Your task to perform on an android device: check storage Image 0: 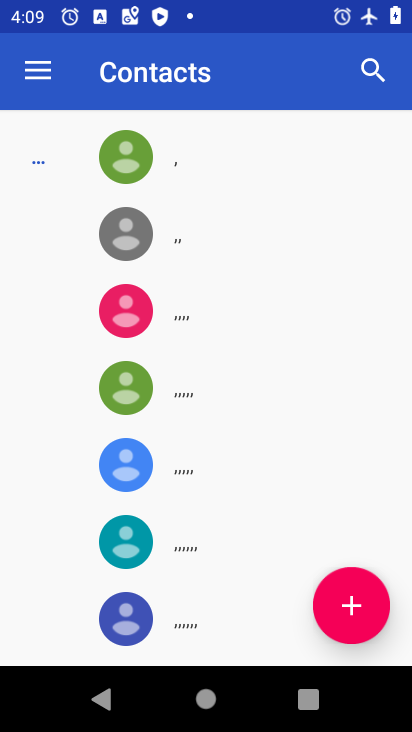
Step 0: press home button
Your task to perform on an android device: check storage Image 1: 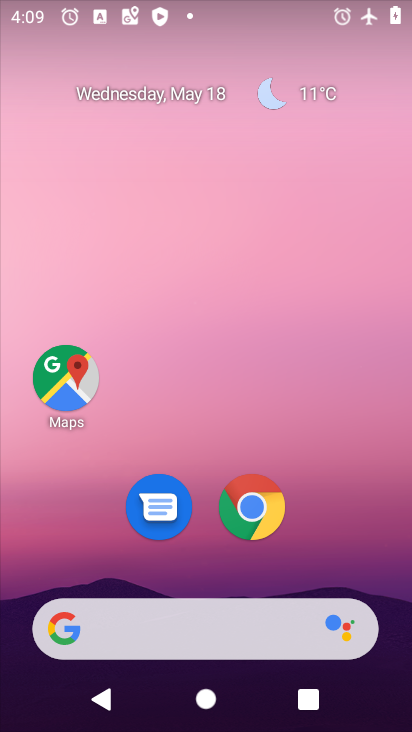
Step 1: drag from (402, 617) to (333, 120)
Your task to perform on an android device: check storage Image 2: 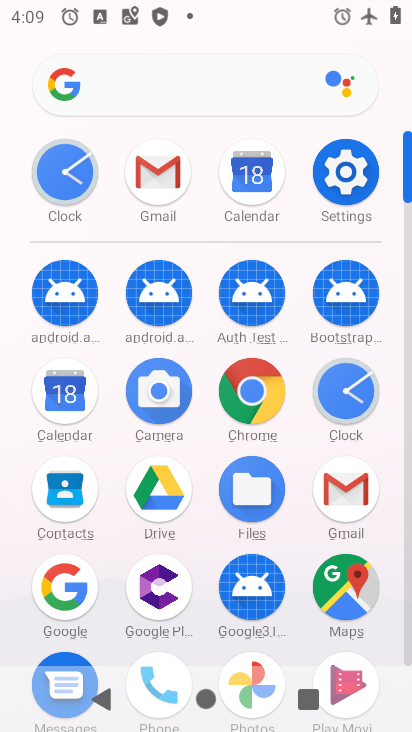
Step 2: click (407, 643)
Your task to perform on an android device: check storage Image 3: 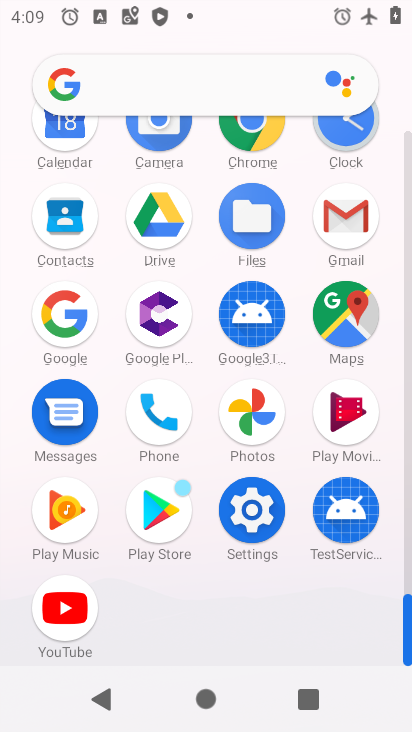
Step 3: click (252, 510)
Your task to perform on an android device: check storage Image 4: 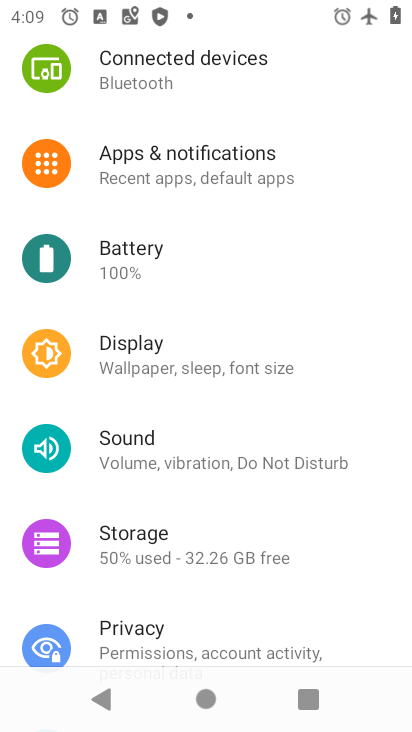
Step 4: click (132, 540)
Your task to perform on an android device: check storage Image 5: 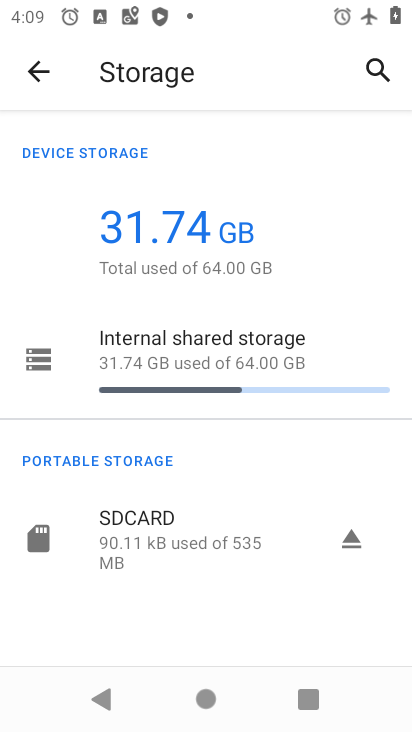
Step 5: task complete